Your task to perform on an android device: add a contact Image 0: 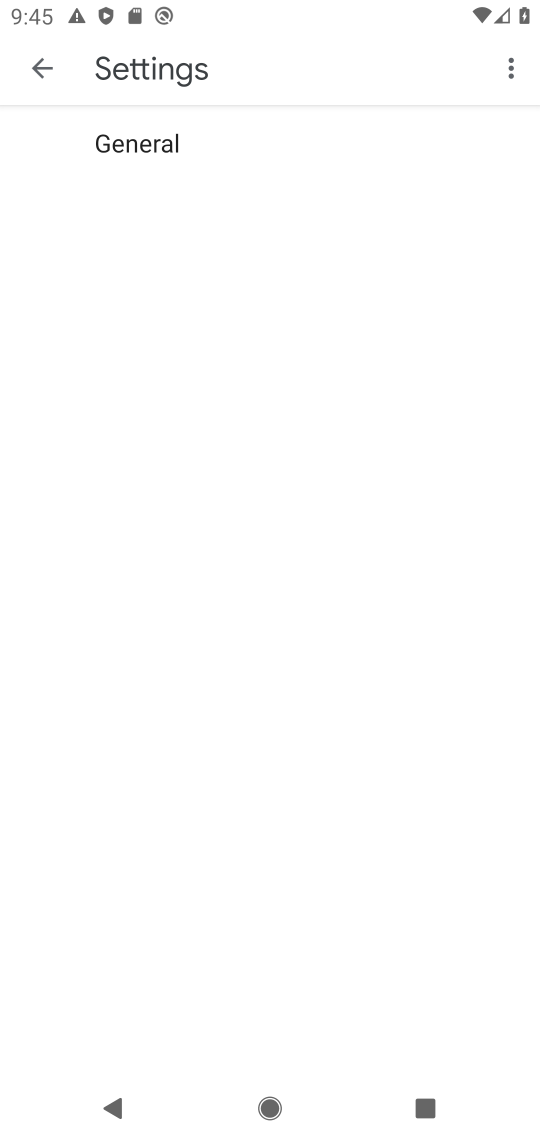
Step 0: press back button
Your task to perform on an android device: add a contact Image 1: 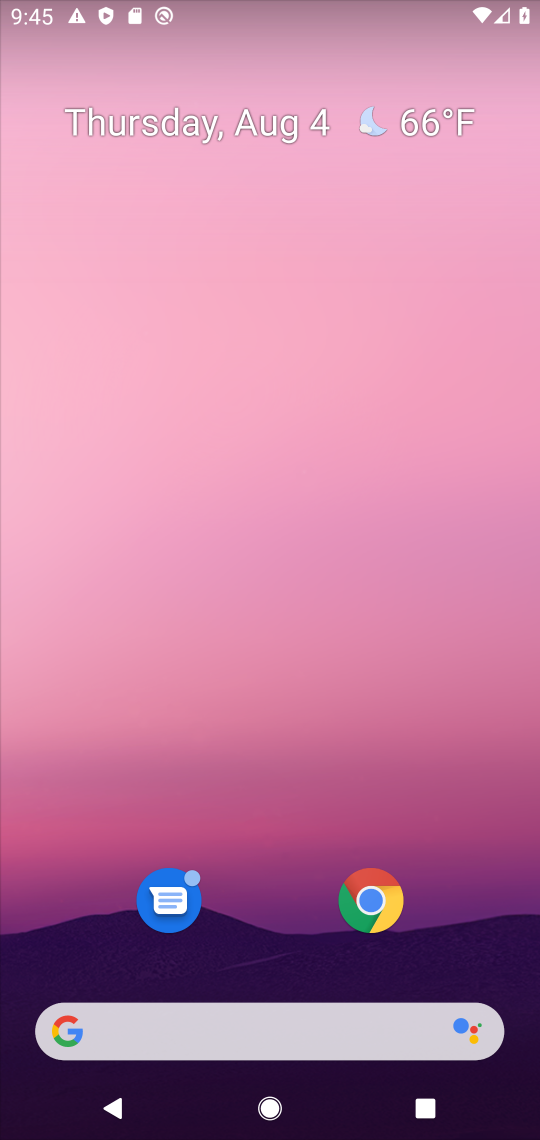
Step 1: drag from (456, 919) to (354, 103)
Your task to perform on an android device: add a contact Image 2: 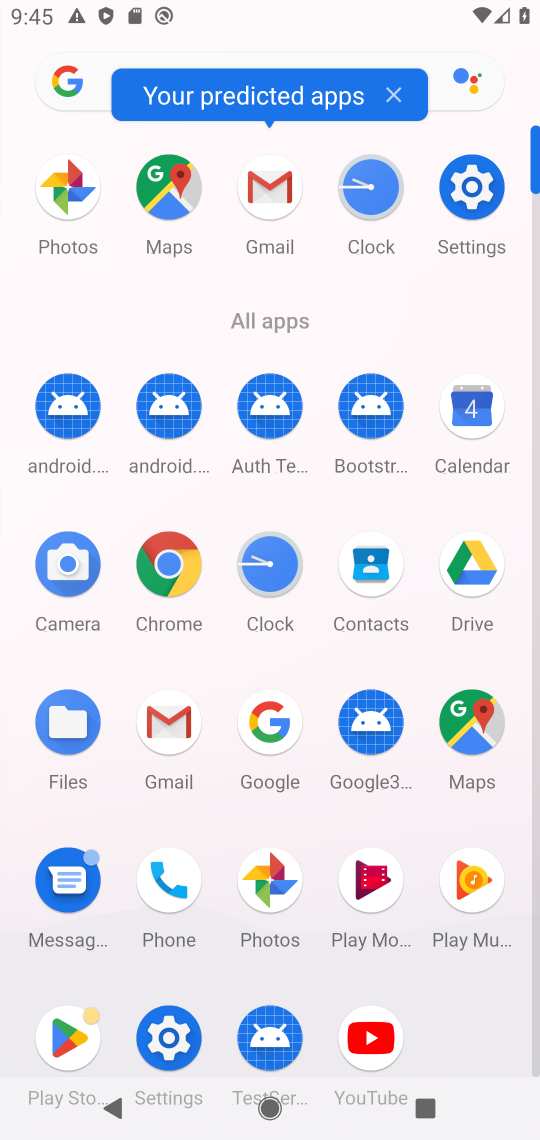
Step 2: click (381, 595)
Your task to perform on an android device: add a contact Image 3: 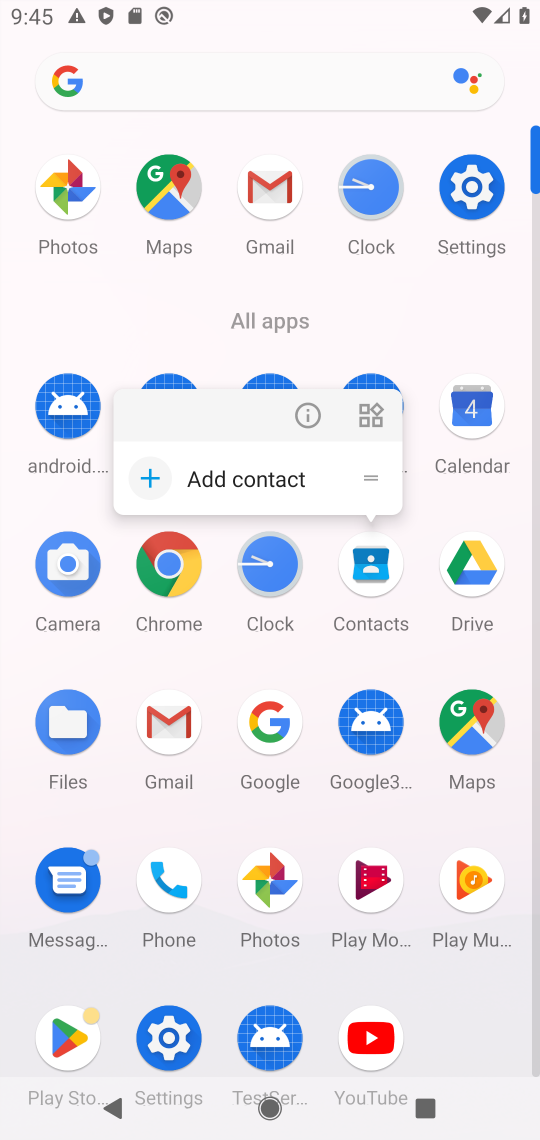
Step 3: click (379, 575)
Your task to perform on an android device: add a contact Image 4: 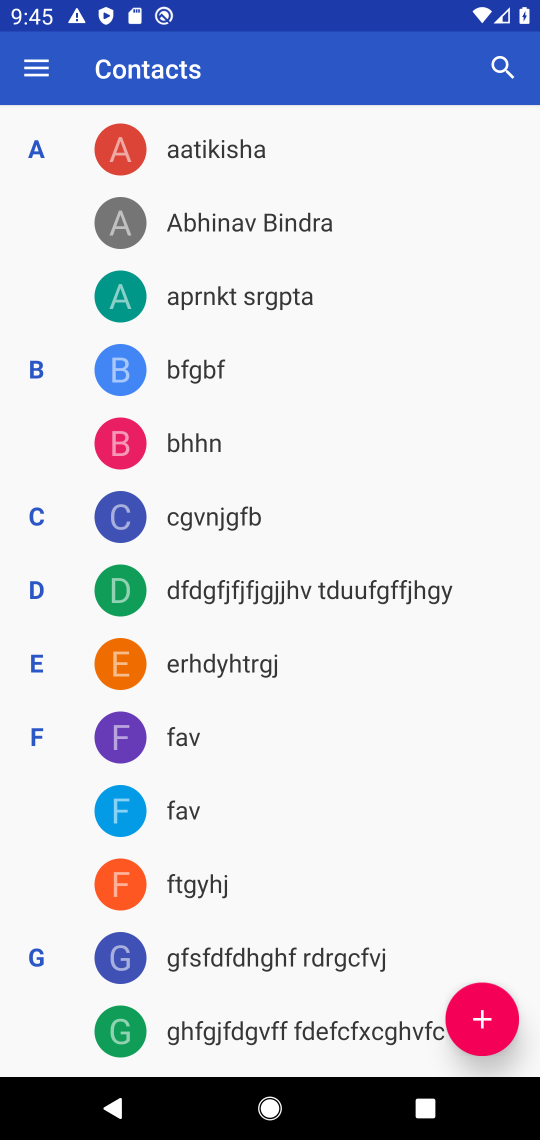
Step 4: click (493, 1034)
Your task to perform on an android device: add a contact Image 5: 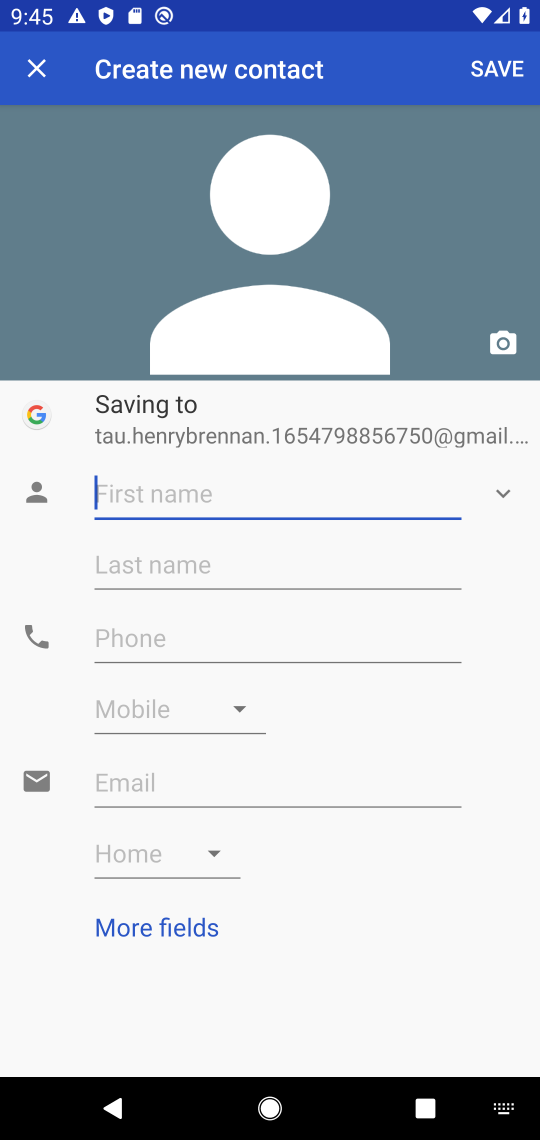
Step 5: click (341, 501)
Your task to perform on an android device: add a contact Image 6: 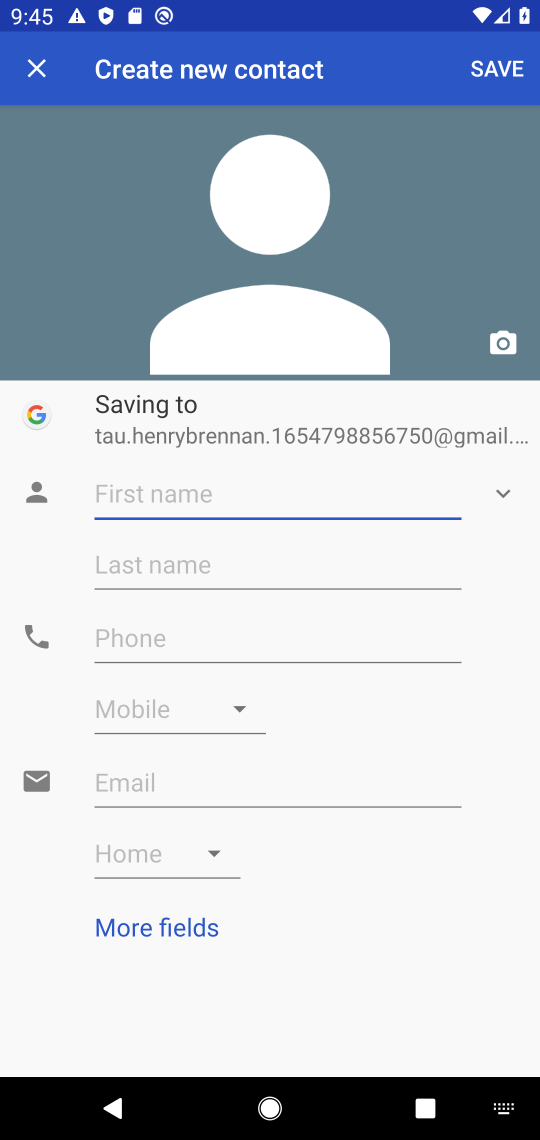
Step 6: type "bhbkhbk"
Your task to perform on an android device: add a contact Image 7: 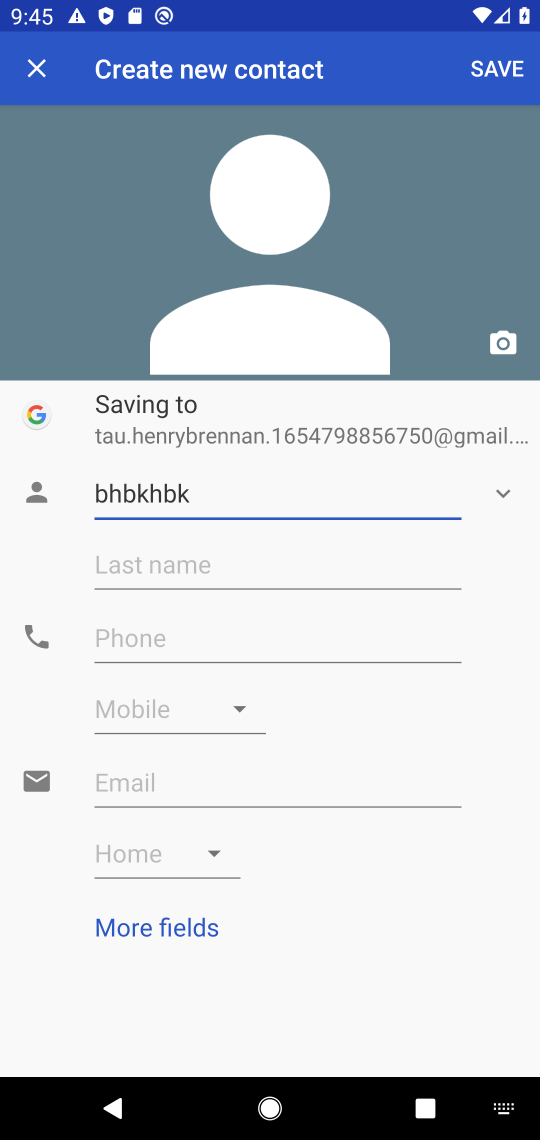
Step 7: click (206, 649)
Your task to perform on an android device: add a contact Image 8: 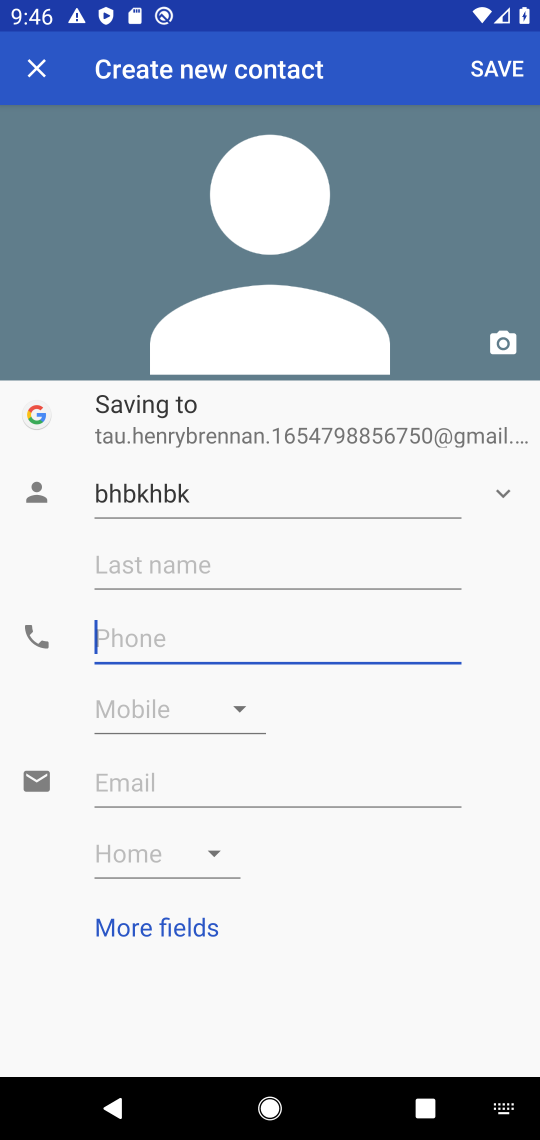
Step 8: type "789798"
Your task to perform on an android device: add a contact Image 9: 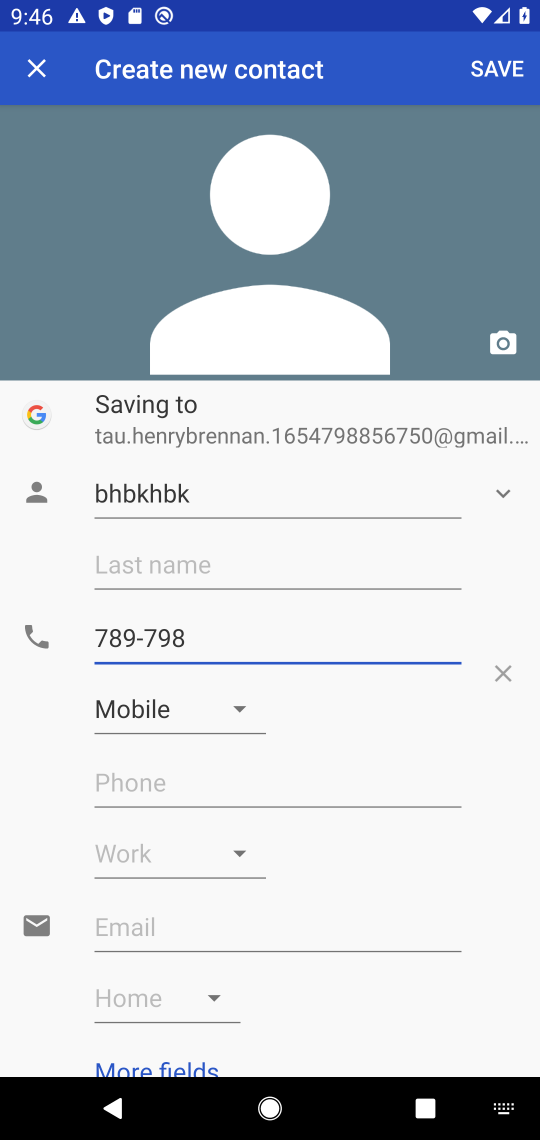
Step 9: click (516, 95)
Your task to perform on an android device: add a contact Image 10: 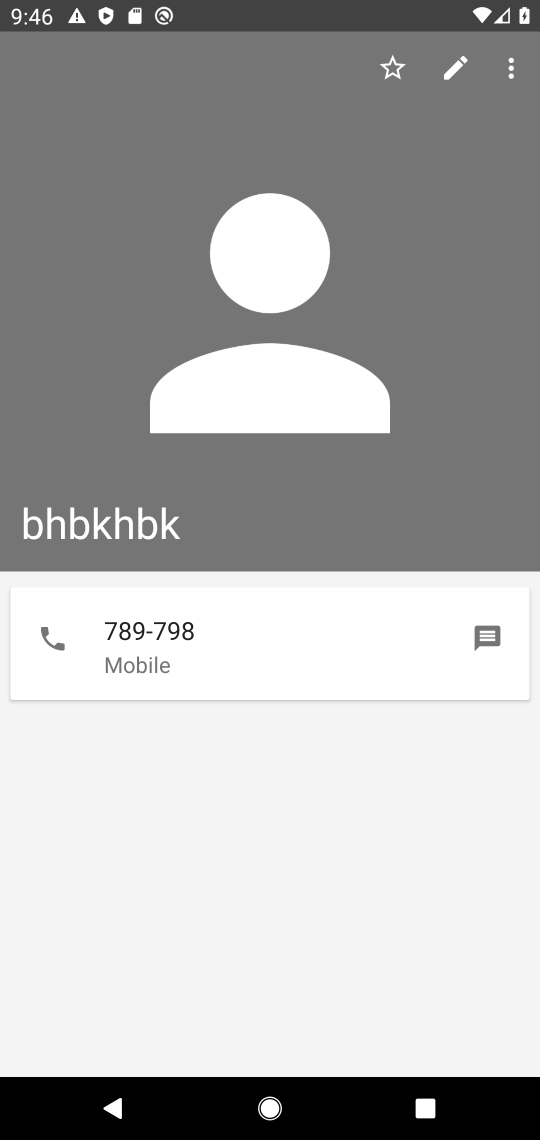
Step 10: task complete